Your task to perform on an android device: find photos in the google photos app Image 0: 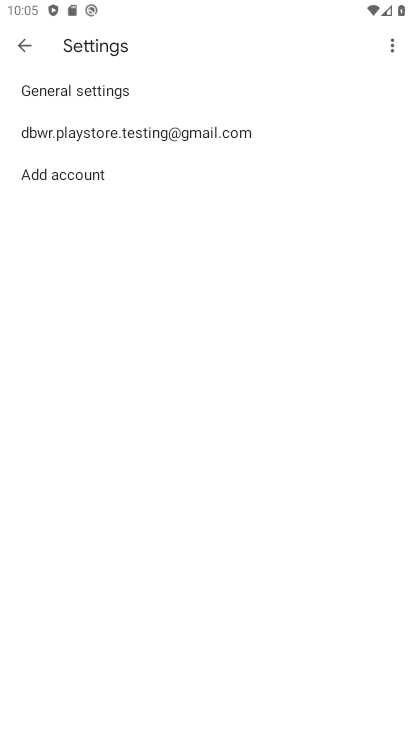
Step 0: press home button
Your task to perform on an android device: find photos in the google photos app Image 1: 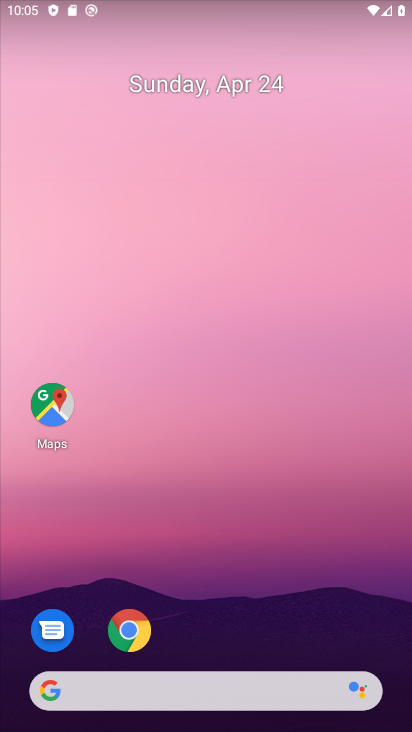
Step 1: drag from (234, 539) to (237, 129)
Your task to perform on an android device: find photos in the google photos app Image 2: 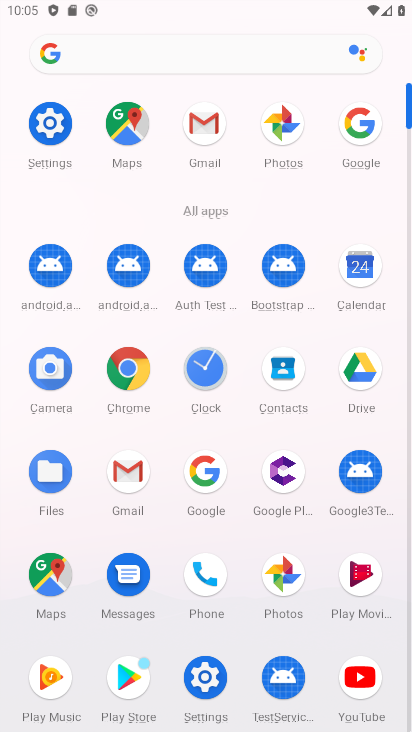
Step 2: click (275, 122)
Your task to perform on an android device: find photos in the google photos app Image 3: 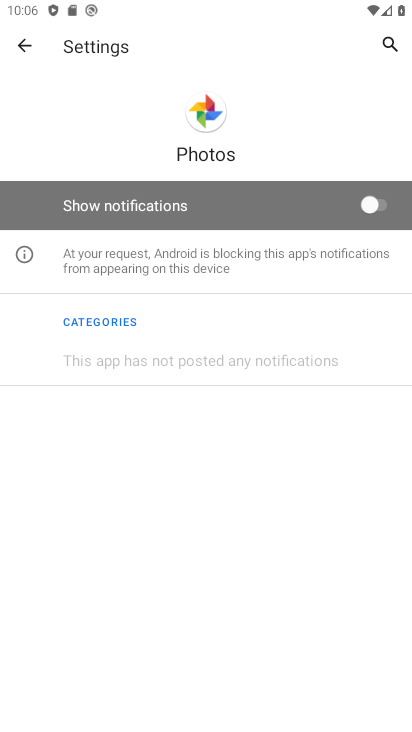
Step 3: click (13, 41)
Your task to perform on an android device: find photos in the google photos app Image 4: 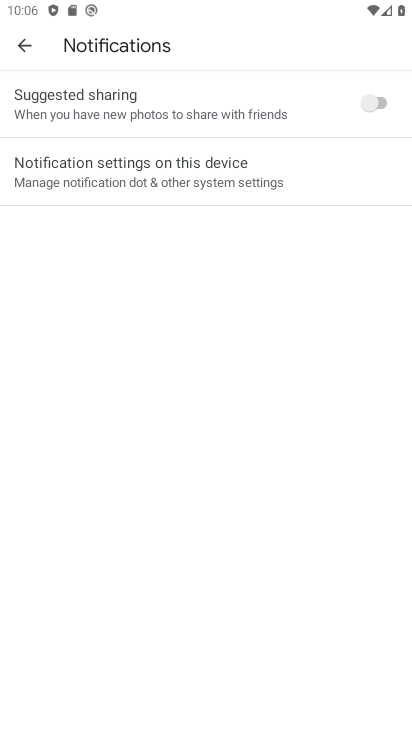
Step 4: click (13, 41)
Your task to perform on an android device: find photos in the google photos app Image 5: 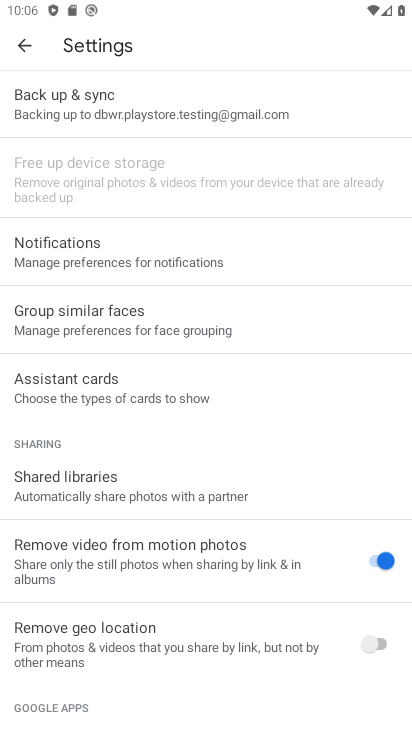
Step 5: click (21, 44)
Your task to perform on an android device: find photos in the google photos app Image 6: 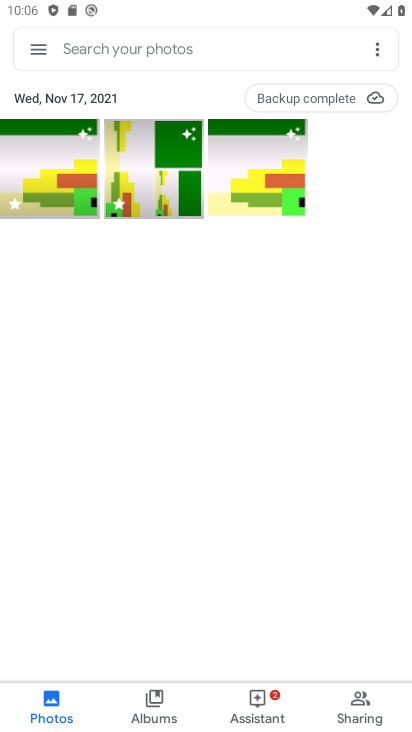
Step 6: click (138, 56)
Your task to perform on an android device: find photos in the google photos app Image 7: 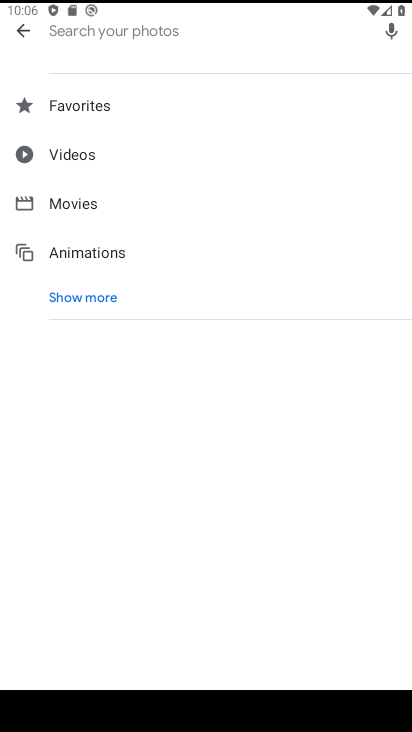
Step 7: type "aaa"
Your task to perform on an android device: find photos in the google photos app Image 8: 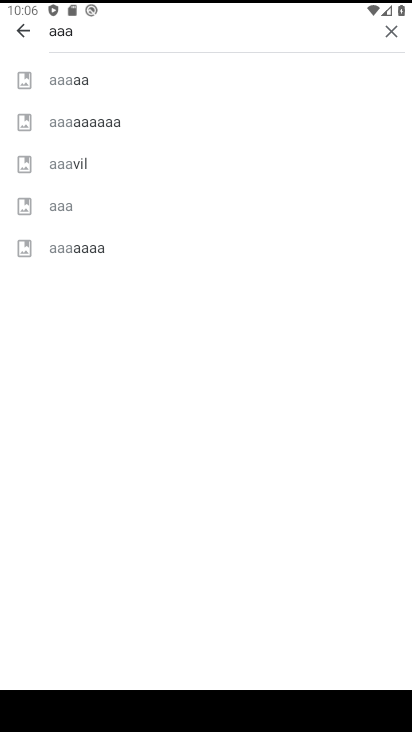
Step 8: click (80, 81)
Your task to perform on an android device: find photos in the google photos app Image 9: 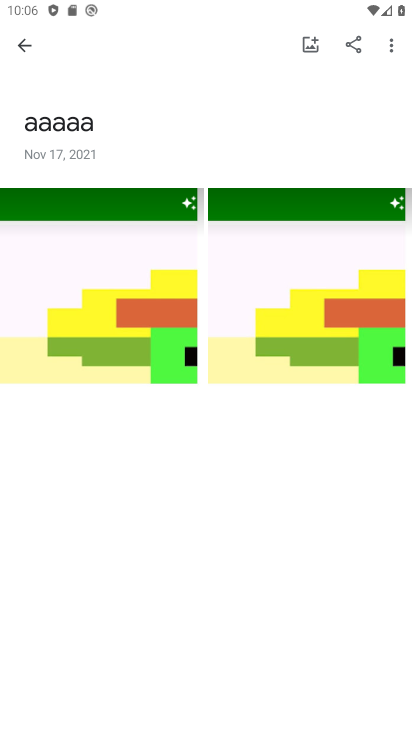
Step 9: task complete